Your task to perform on an android device: make emails show in primary in the gmail app Image 0: 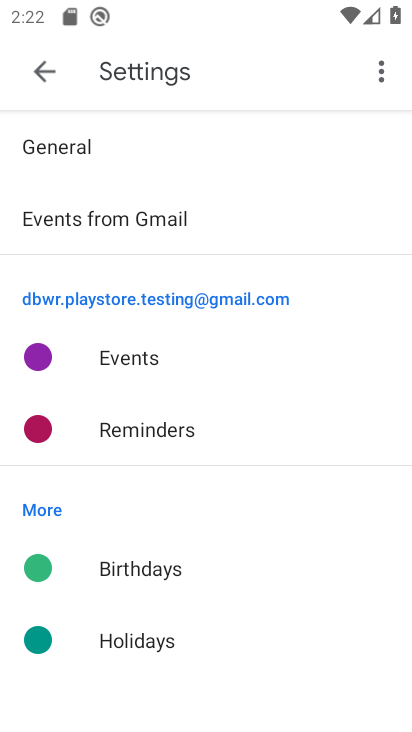
Step 0: press home button
Your task to perform on an android device: make emails show in primary in the gmail app Image 1: 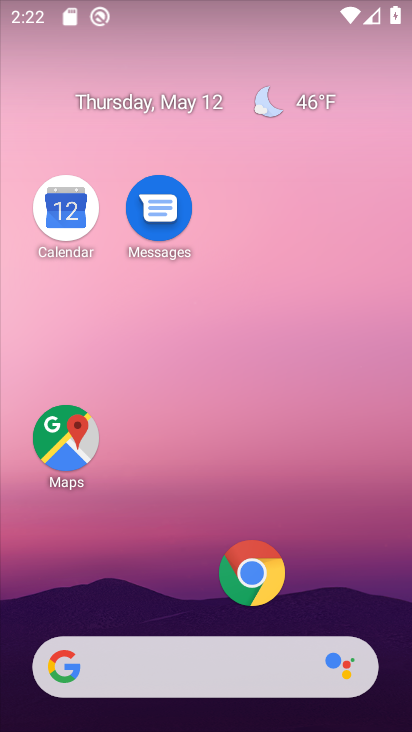
Step 1: drag from (215, 609) to (243, 325)
Your task to perform on an android device: make emails show in primary in the gmail app Image 2: 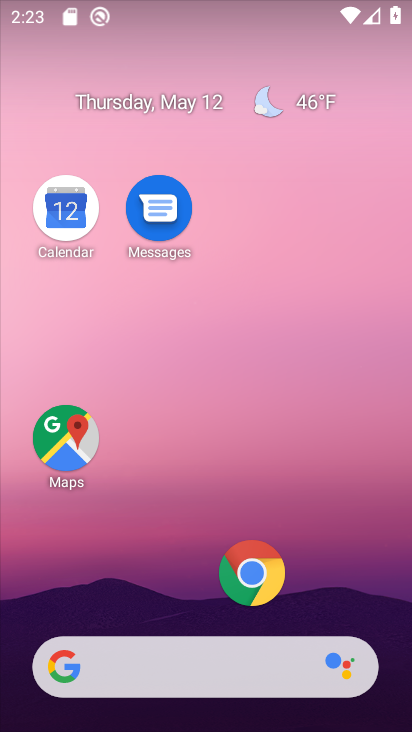
Step 2: drag from (198, 605) to (328, 7)
Your task to perform on an android device: make emails show in primary in the gmail app Image 3: 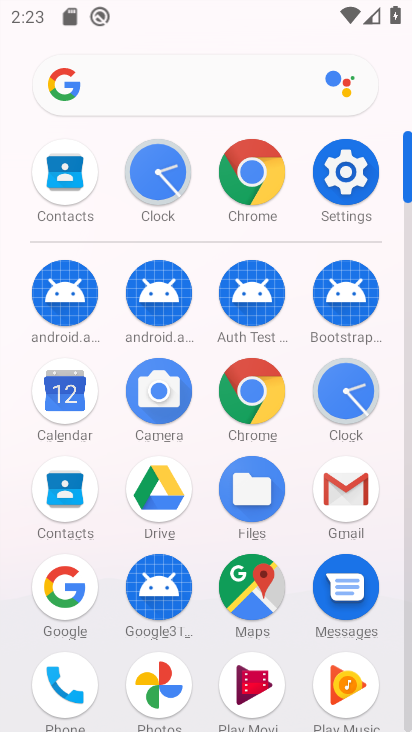
Step 3: click (342, 501)
Your task to perform on an android device: make emails show in primary in the gmail app Image 4: 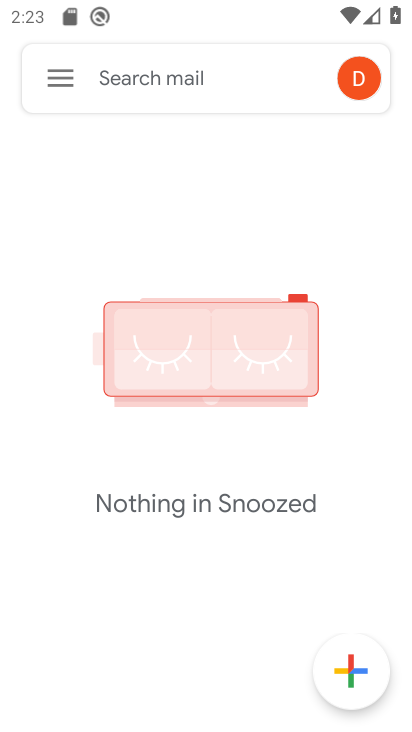
Step 4: drag from (134, 551) to (300, 79)
Your task to perform on an android device: make emails show in primary in the gmail app Image 5: 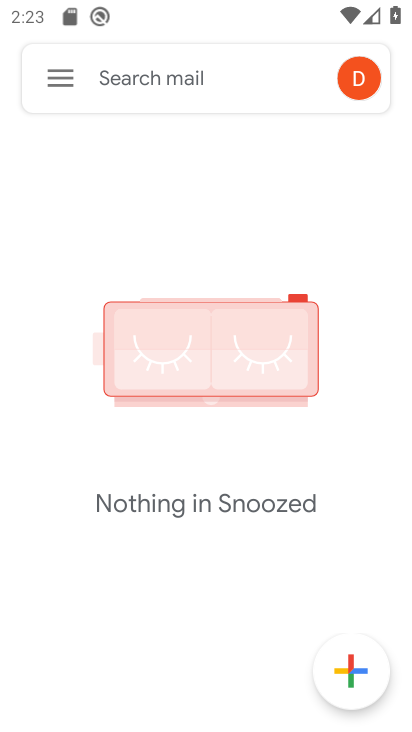
Step 5: click (70, 83)
Your task to perform on an android device: make emails show in primary in the gmail app Image 6: 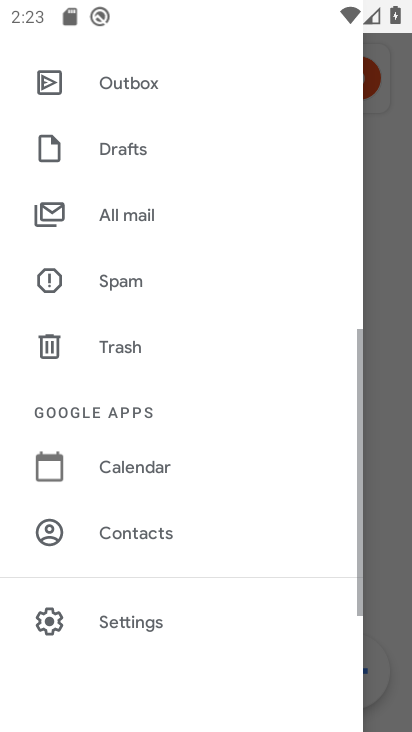
Step 6: drag from (193, 528) to (233, 201)
Your task to perform on an android device: make emails show in primary in the gmail app Image 7: 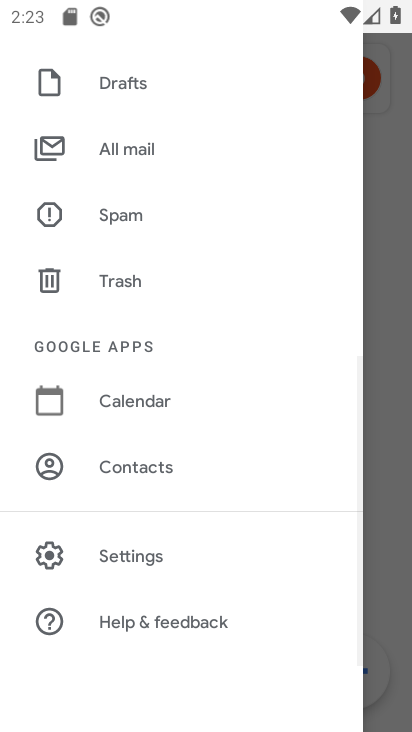
Step 7: drag from (191, 208) to (254, 625)
Your task to perform on an android device: make emails show in primary in the gmail app Image 8: 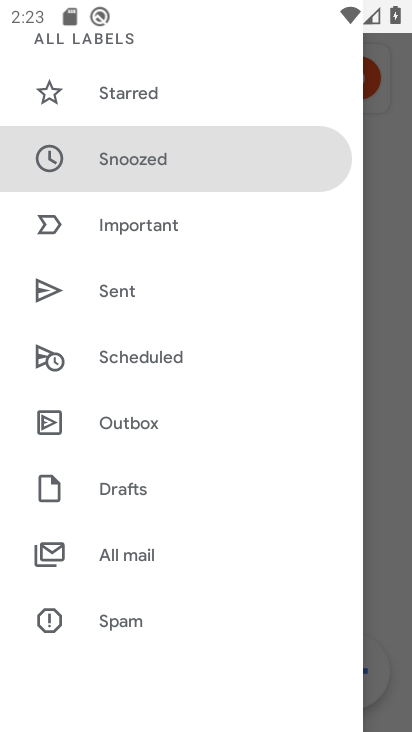
Step 8: drag from (122, 157) to (251, 623)
Your task to perform on an android device: make emails show in primary in the gmail app Image 9: 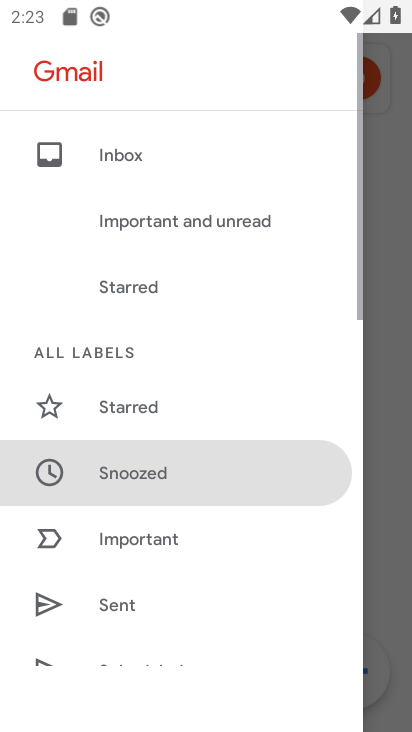
Step 9: click (126, 163)
Your task to perform on an android device: make emails show in primary in the gmail app Image 10: 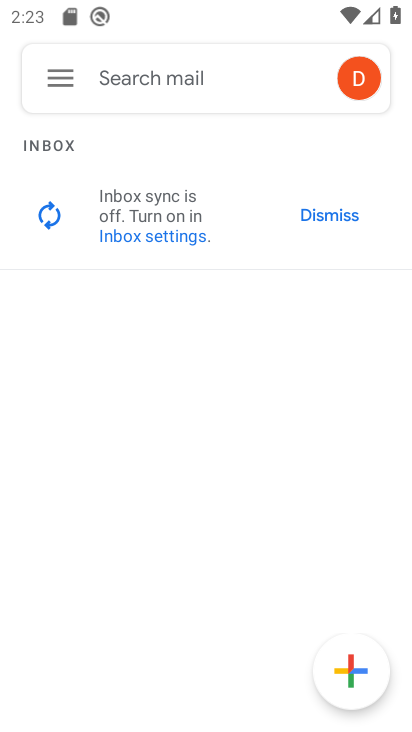
Step 10: click (60, 86)
Your task to perform on an android device: make emails show in primary in the gmail app Image 11: 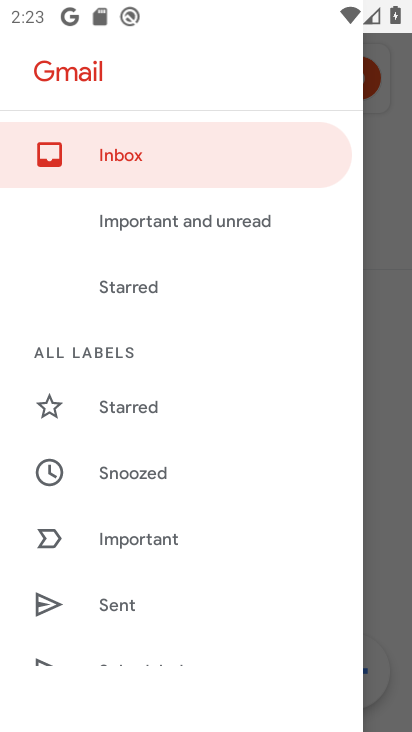
Step 11: click (138, 151)
Your task to perform on an android device: make emails show in primary in the gmail app Image 12: 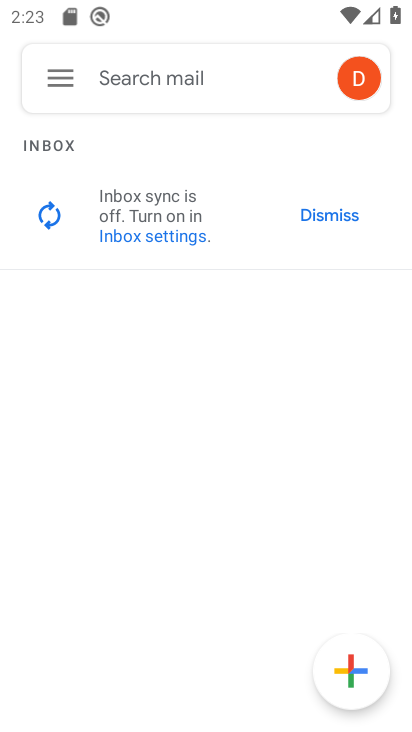
Step 12: task complete